Your task to perform on an android device: add a contact Image 0: 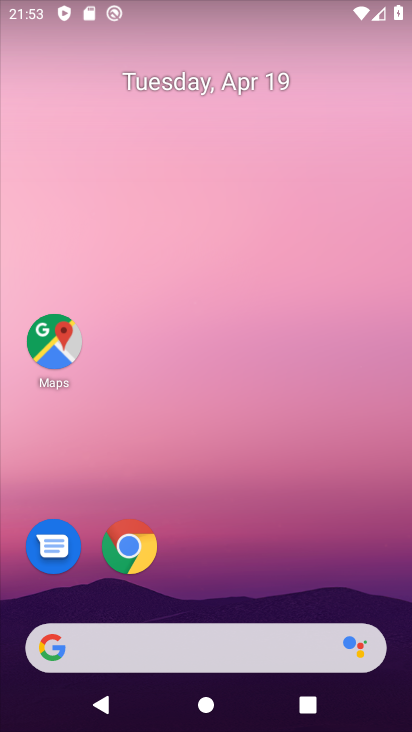
Step 0: drag from (231, 600) to (246, 4)
Your task to perform on an android device: add a contact Image 1: 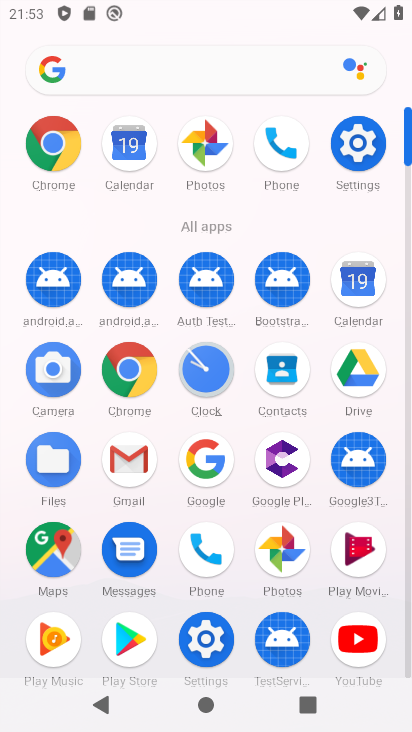
Step 1: click (185, 546)
Your task to perform on an android device: add a contact Image 2: 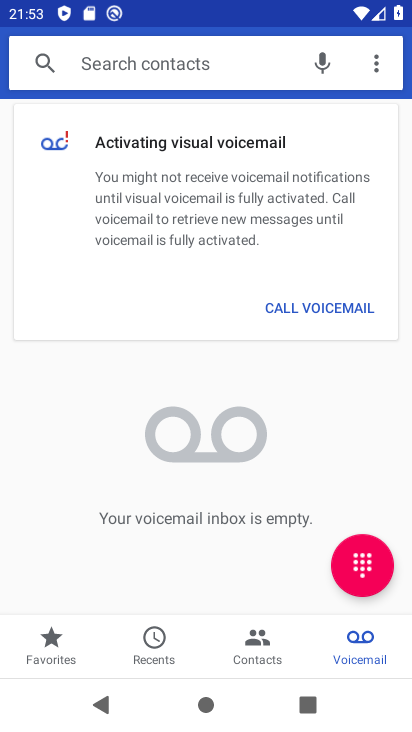
Step 2: click (259, 644)
Your task to perform on an android device: add a contact Image 3: 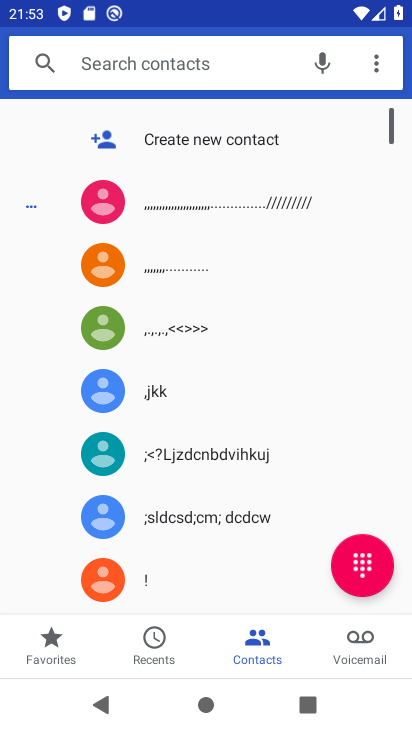
Step 3: click (183, 140)
Your task to perform on an android device: add a contact Image 4: 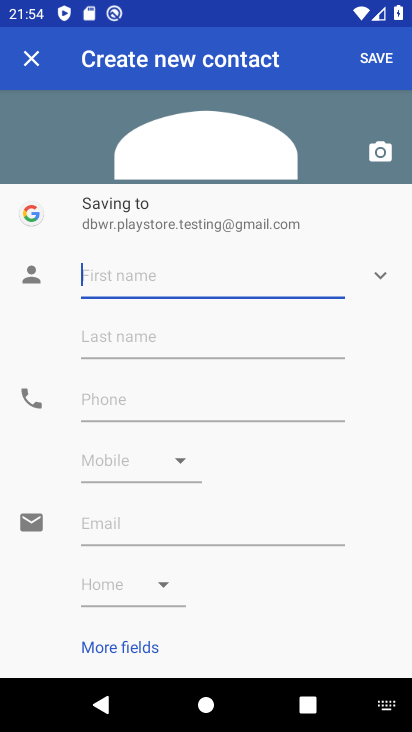
Step 4: type "f"
Your task to perform on an android device: add a contact Image 5: 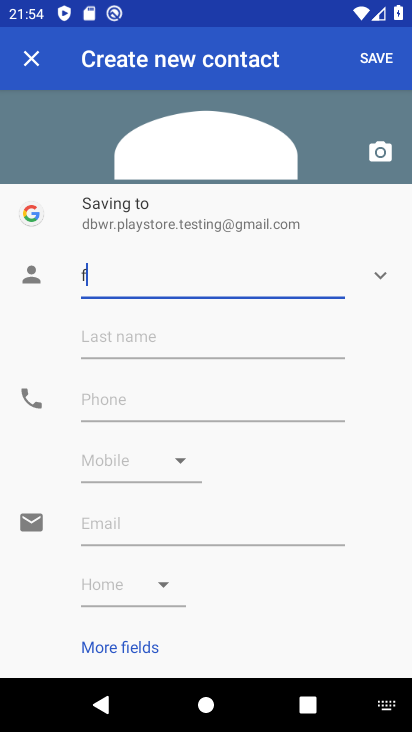
Step 5: type ""
Your task to perform on an android device: add a contact Image 6: 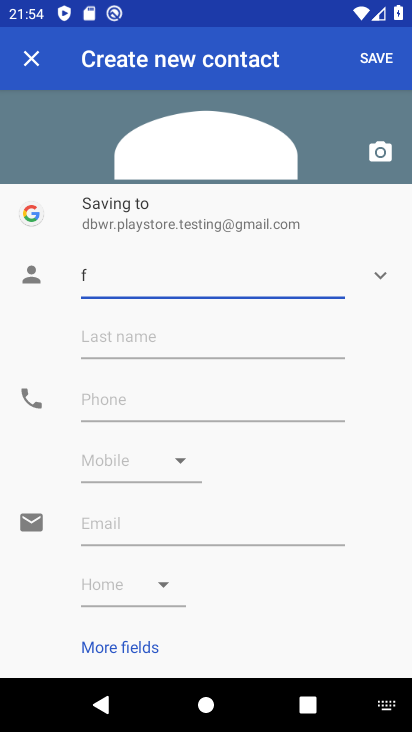
Step 6: click (136, 407)
Your task to perform on an android device: add a contact Image 7: 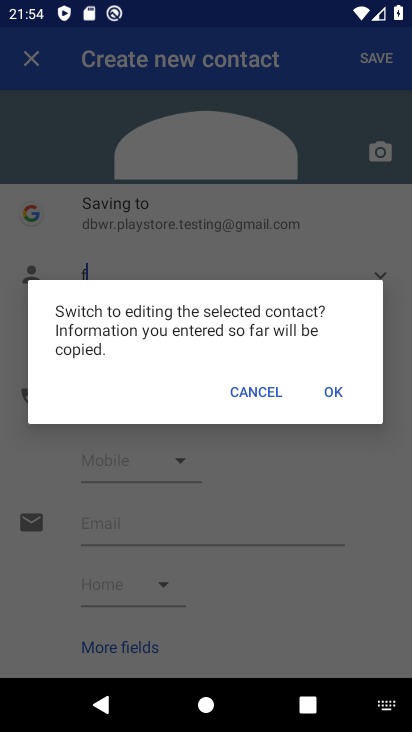
Step 7: click (325, 386)
Your task to perform on an android device: add a contact Image 8: 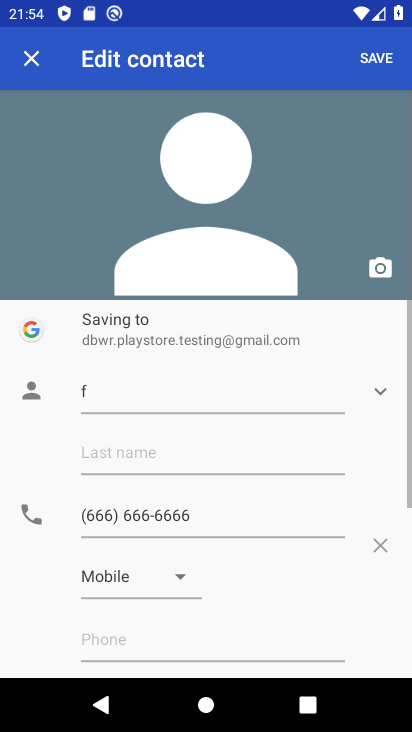
Step 8: click (374, 72)
Your task to perform on an android device: add a contact Image 9: 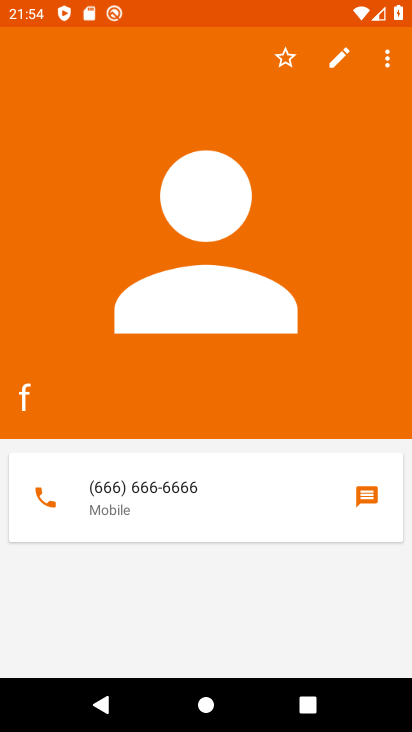
Step 9: task complete